Your task to perform on an android device: Open the map Image 0: 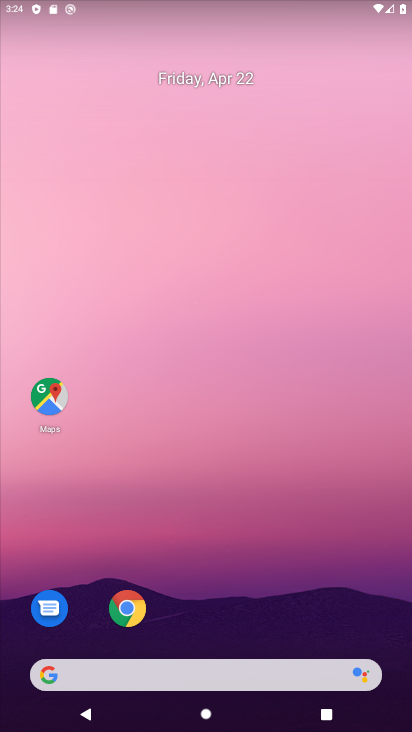
Step 0: drag from (222, 607) to (187, 136)
Your task to perform on an android device: Open the map Image 1: 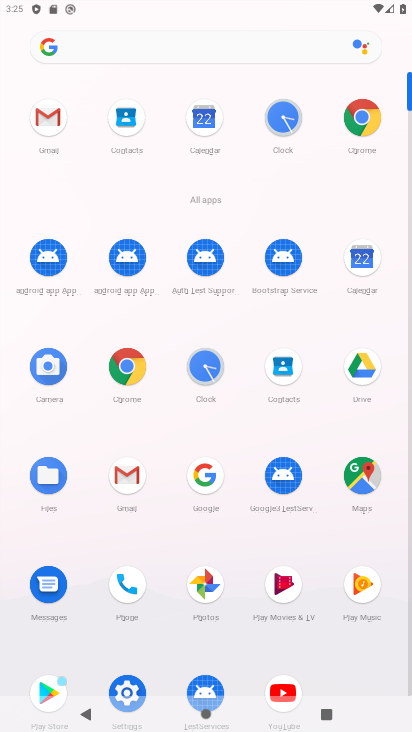
Step 1: click (353, 467)
Your task to perform on an android device: Open the map Image 2: 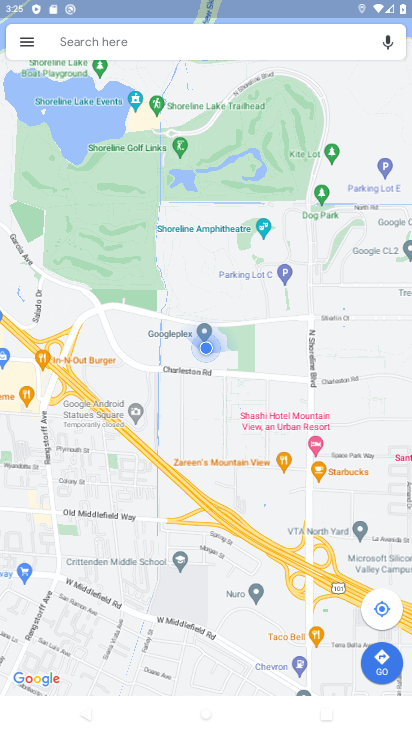
Step 2: task complete